Your task to perform on an android device: change the upload size in google photos Image 0: 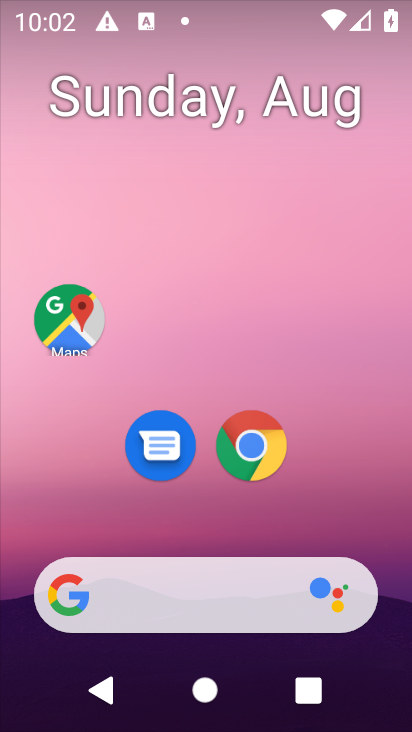
Step 0: press home button
Your task to perform on an android device: change the upload size in google photos Image 1: 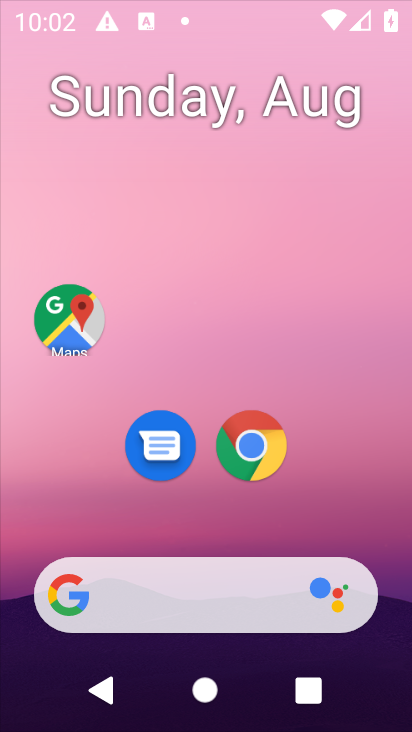
Step 1: press home button
Your task to perform on an android device: change the upload size in google photos Image 2: 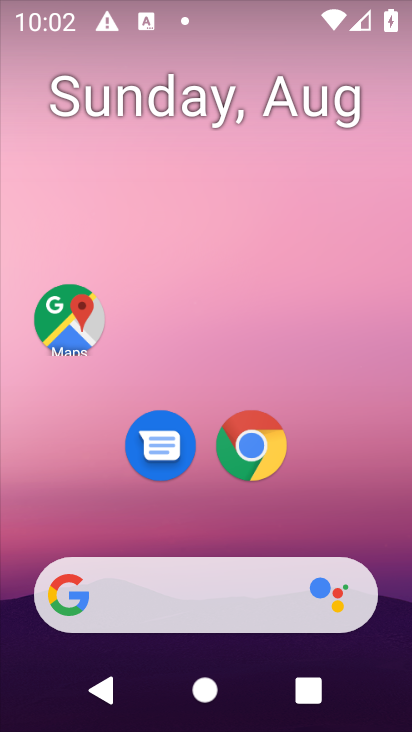
Step 2: click (225, 47)
Your task to perform on an android device: change the upload size in google photos Image 3: 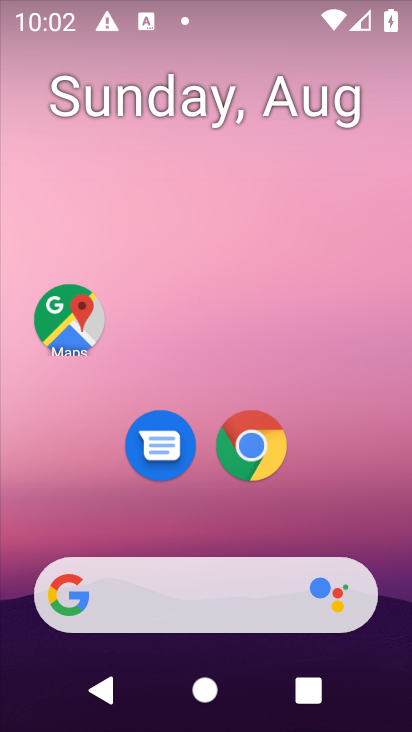
Step 3: drag from (204, 527) to (207, 60)
Your task to perform on an android device: change the upload size in google photos Image 4: 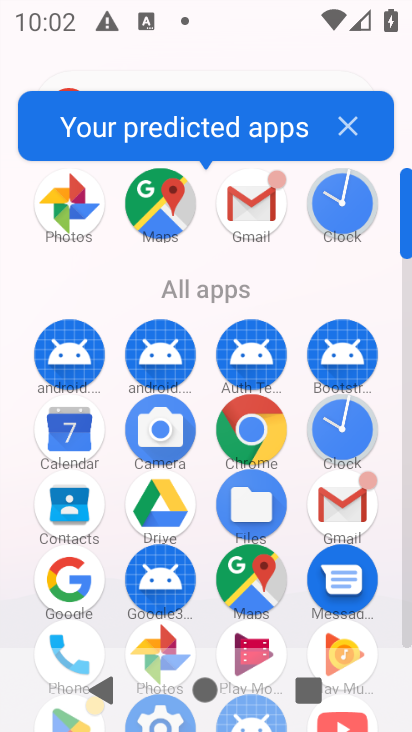
Step 4: click (156, 635)
Your task to perform on an android device: change the upload size in google photos Image 5: 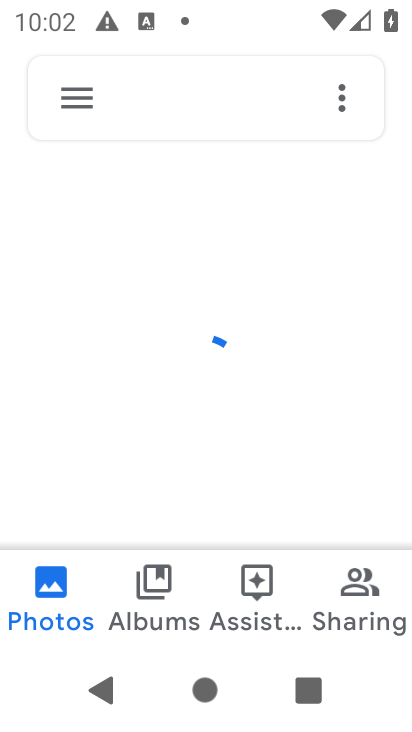
Step 5: click (71, 91)
Your task to perform on an android device: change the upload size in google photos Image 6: 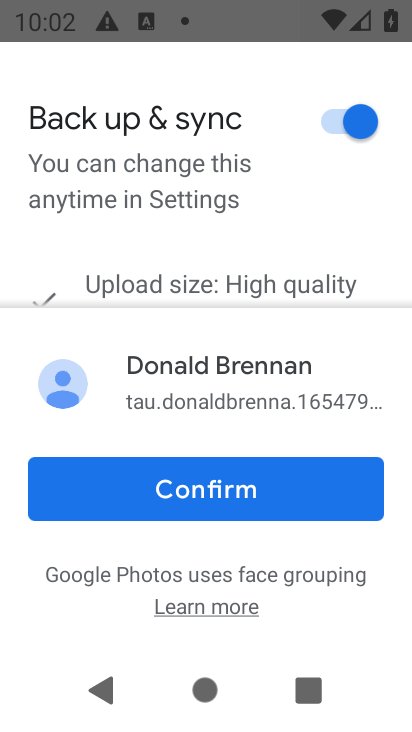
Step 6: click (234, 493)
Your task to perform on an android device: change the upload size in google photos Image 7: 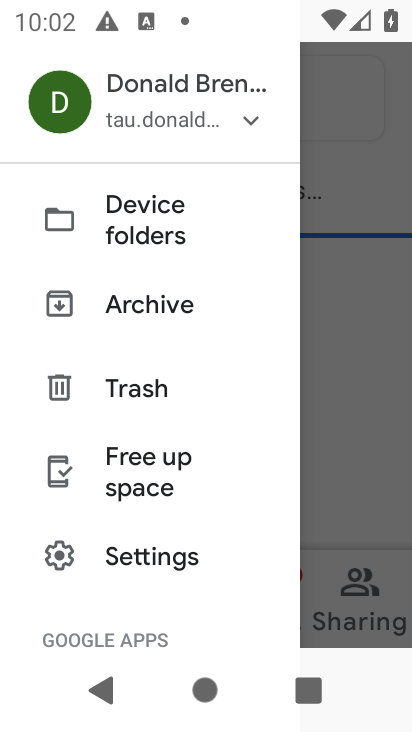
Step 7: click (103, 547)
Your task to perform on an android device: change the upload size in google photos Image 8: 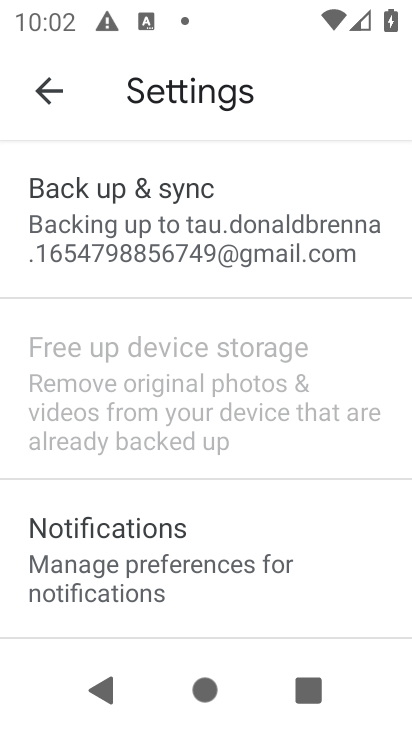
Step 8: drag from (192, 579) to (218, 202)
Your task to perform on an android device: change the upload size in google photos Image 9: 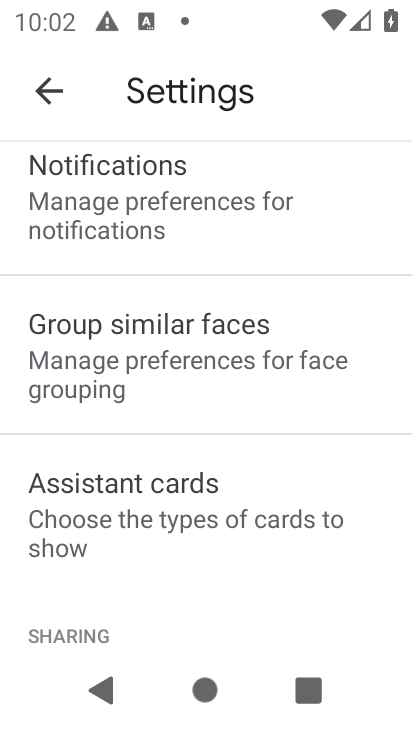
Step 9: drag from (210, 191) to (229, 594)
Your task to perform on an android device: change the upload size in google photos Image 10: 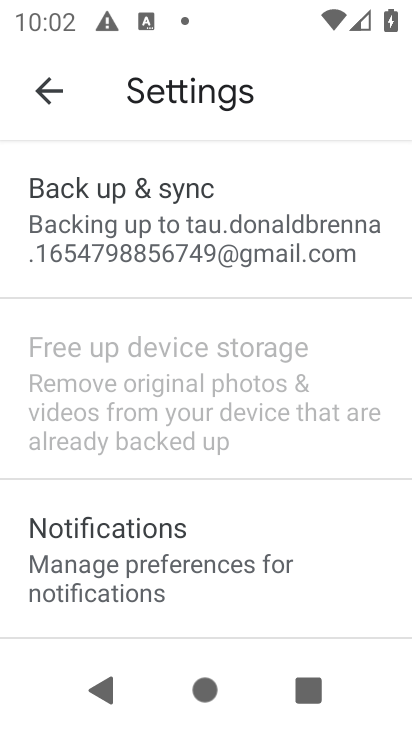
Step 10: click (164, 246)
Your task to perform on an android device: change the upload size in google photos Image 11: 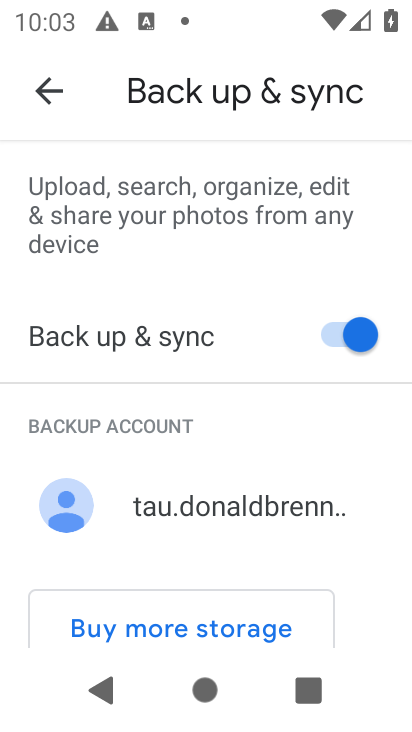
Step 11: drag from (171, 559) to (230, 158)
Your task to perform on an android device: change the upload size in google photos Image 12: 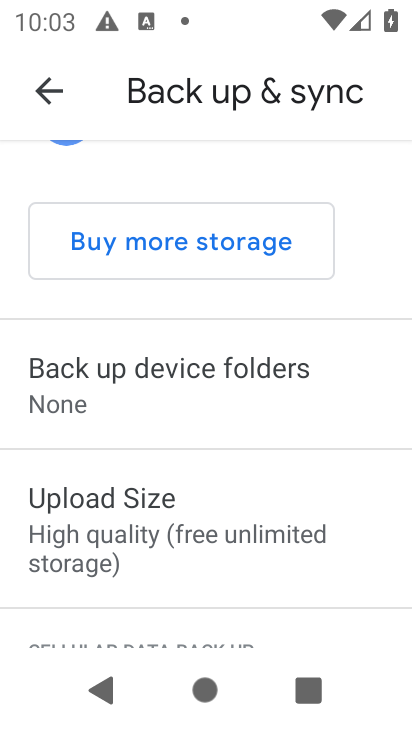
Step 12: click (189, 487)
Your task to perform on an android device: change the upload size in google photos Image 13: 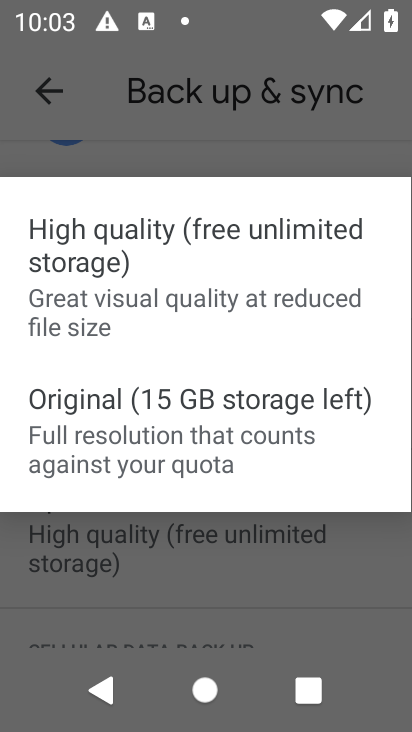
Step 13: click (138, 424)
Your task to perform on an android device: change the upload size in google photos Image 14: 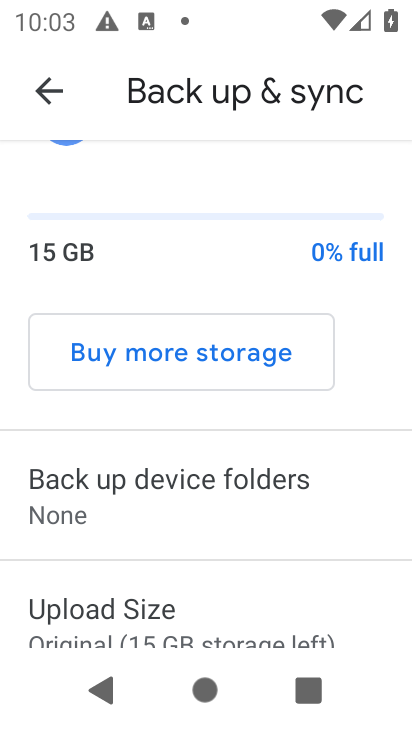
Step 14: task complete